Your task to perform on an android device: Go to eBay Image 0: 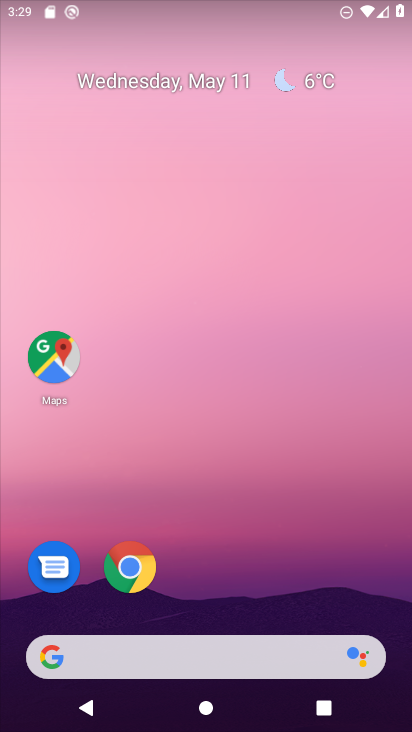
Step 0: click (139, 568)
Your task to perform on an android device: Go to eBay Image 1: 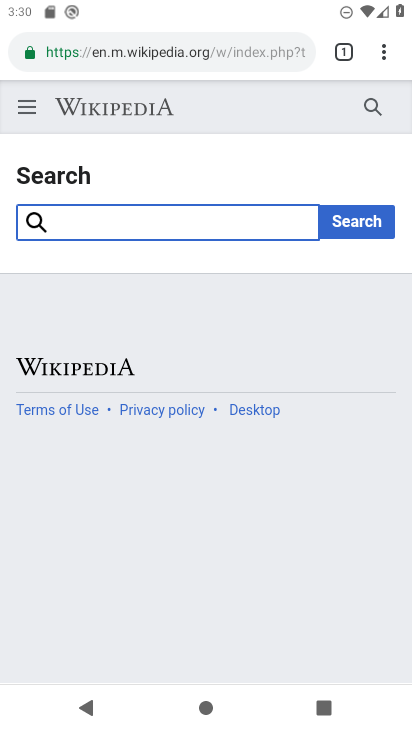
Step 1: click (198, 56)
Your task to perform on an android device: Go to eBay Image 2: 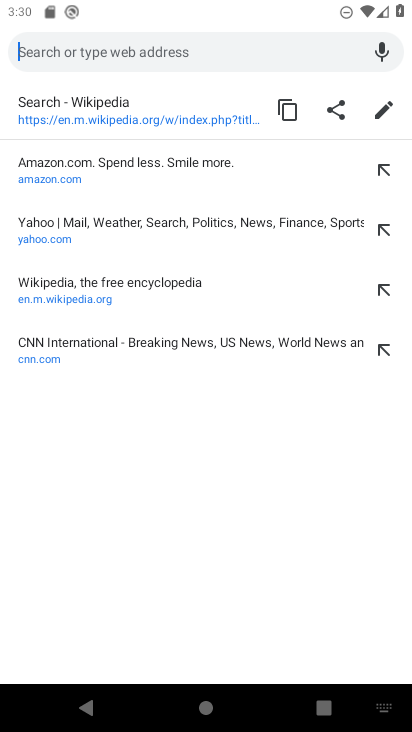
Step 2: type "ebay.com"
Your task to perform on an android device: Go to eBay Image 3: 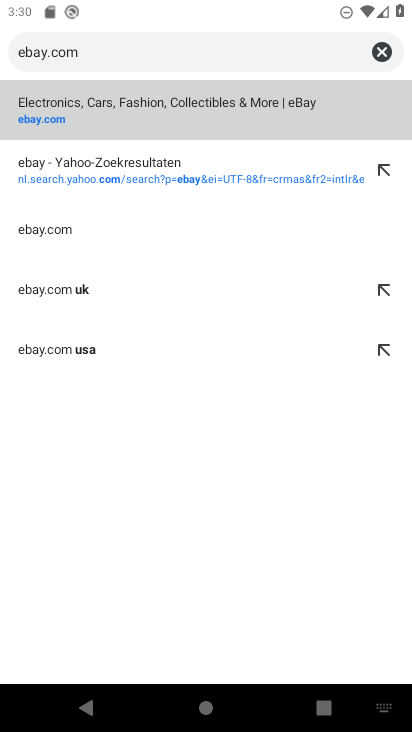
Step 3: click (146, 102)
Your task to perform on an android device: Go to eBay Image 4: 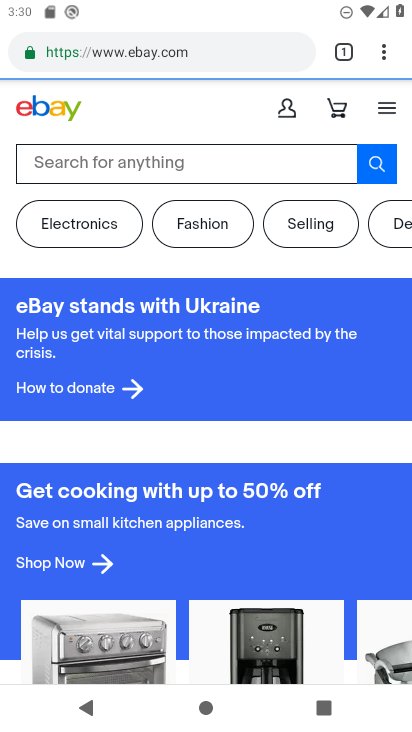
Step 4: task complete